Your task to perform on an android device: Open the web browser Image 0: 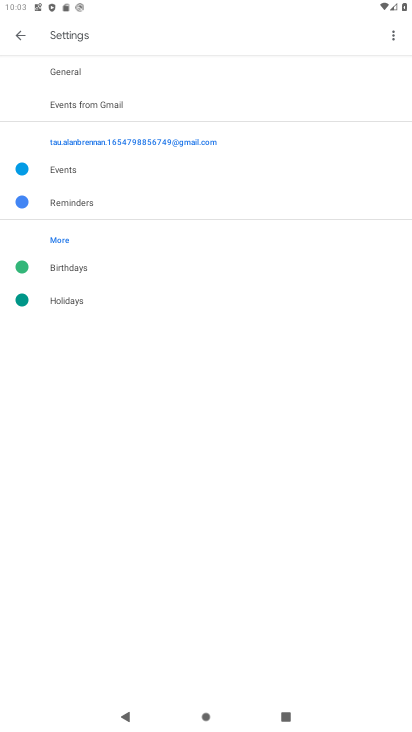
Step 0: press home button
Your task to perform on an android device: Open the web browser Image 1: 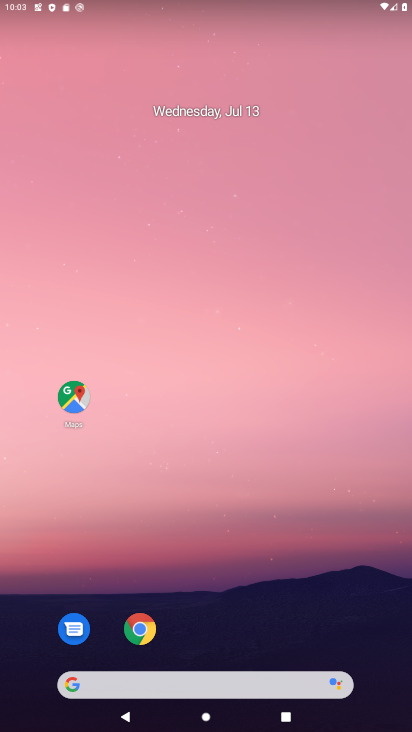
Step 1: click (138, 629)
Your task to perform on an android device: Open the web browser Image 2: 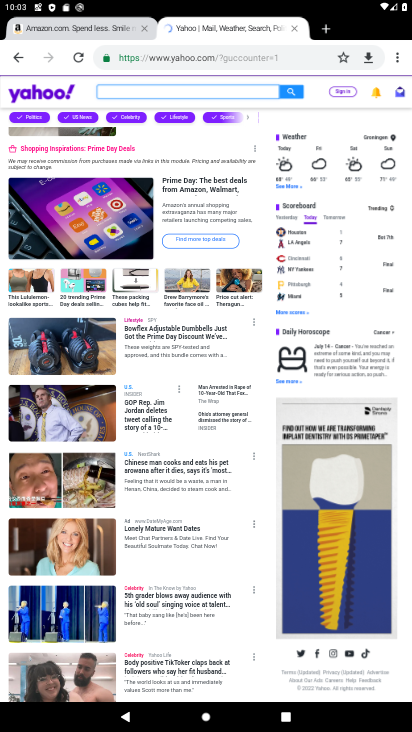
Step 2: click (323, 33)
Your task to perform on an android device: Open the web browser Image 3: 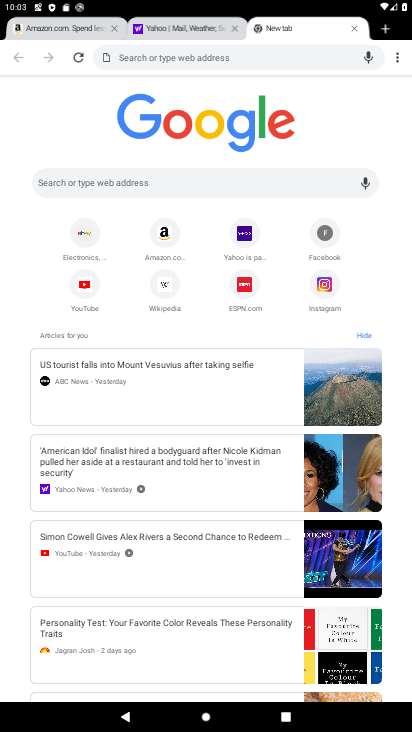
Step 3: task complete